Your task to perform on an android device: find snoozed emails in the gmail app Image 0: 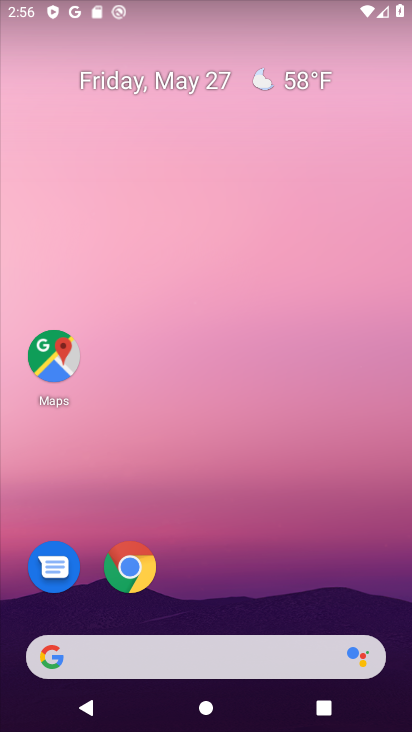
Step 0: drag from (214, 613) to (223, 1)
Your task to perform on an android device: find snoozed emails in the gmail app Image 1: 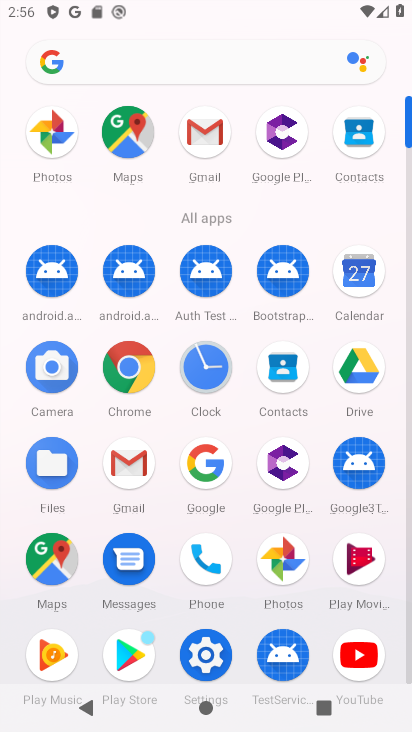
Step 1: click (125, 456)
Your task to perform on an android device: find snoozed emails in the gmail app Image 2: 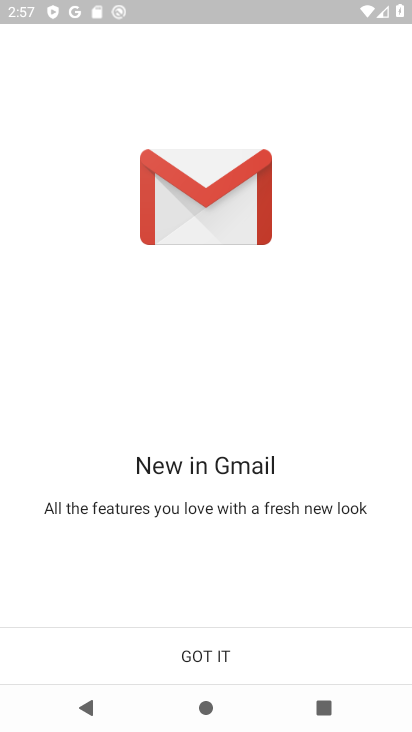
Step 2: click (214, 658)
Your task to perform on an android device: find snoozed emails in the gmail app Image 3: 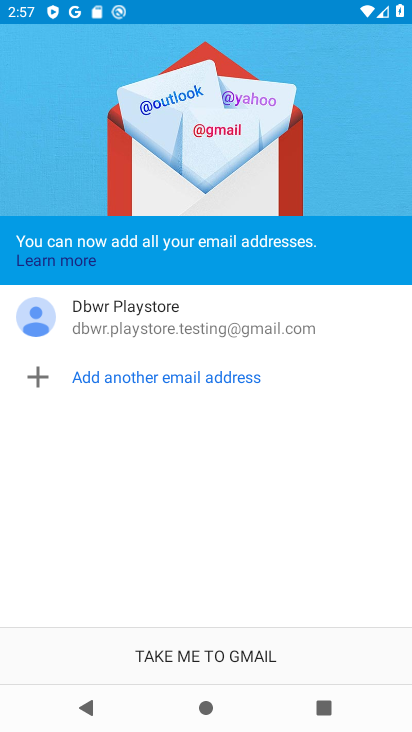
Step 3: click (204, 657)
Your task to perform on an android device: find snoozed emails in the gmail app Image 4: 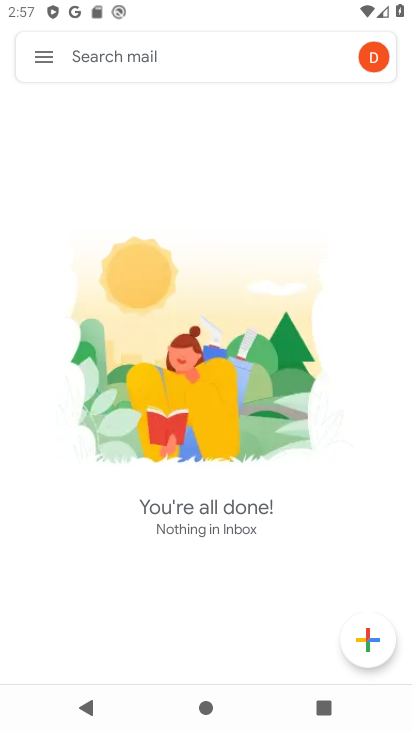
Step 4: click (46, 43)
Your task to perform on an android device: find snoozed emails in the gmail app Image 5: 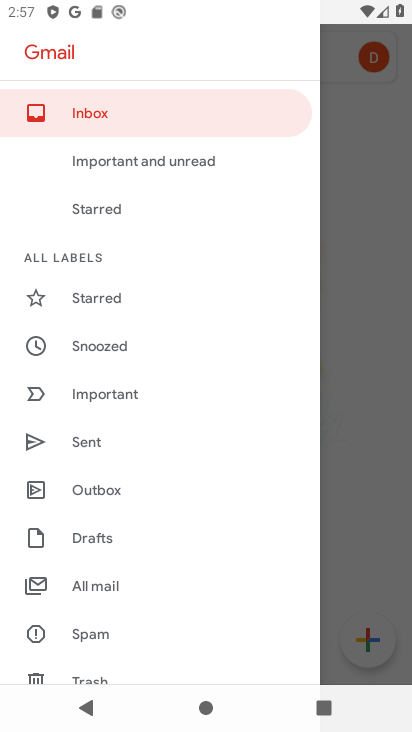
Step 5: click (121, 646)
Your task to perform on an android device: find snoozed emails in the gmail app Image 6: 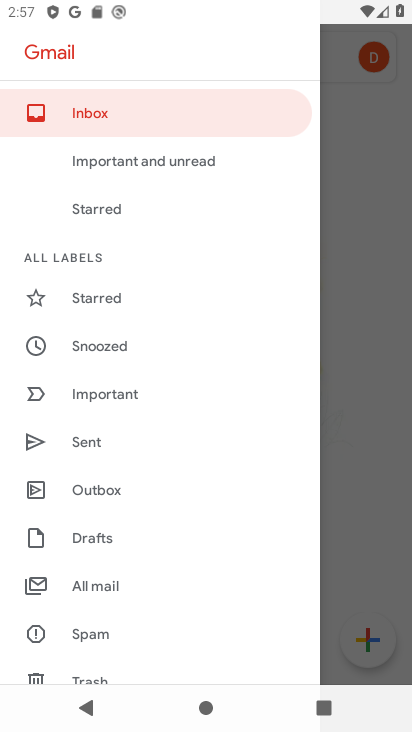
Step 6: drag from (126, 574) to (141, 633)
Your task to perform on an android device: find snoozed emails in the gmail app Image 7: 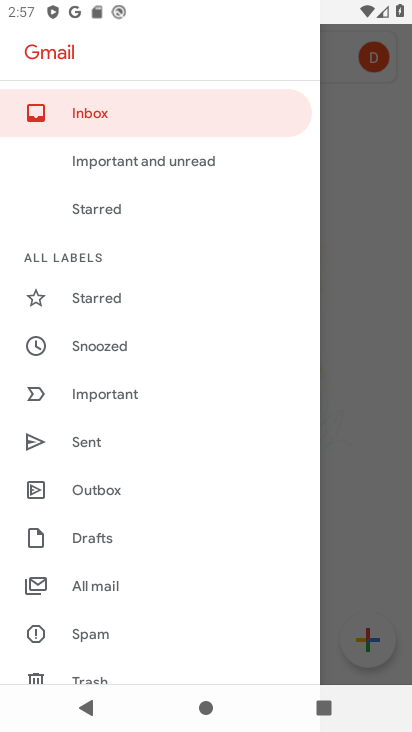
Step 7: click (131, 343)
Your task to perform on an android device: find snoozed emails in the gmail app Image 8: 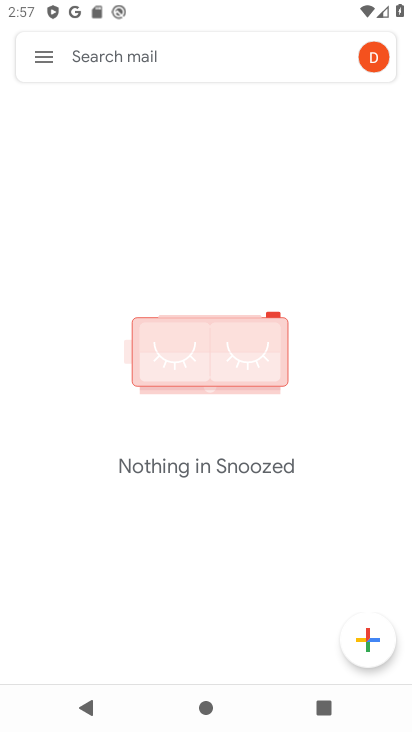
Step 8: task complete